Your task to perform on an android device: What is the recent news? Image 0: 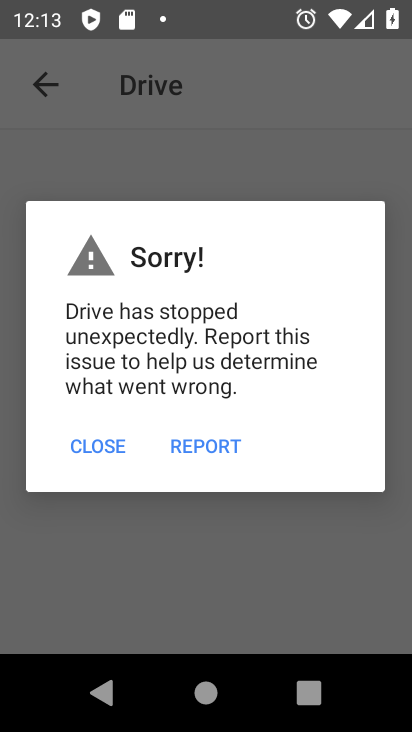
Step 0: press home button
Your task to perform on an android device: What is the recent news? Image 1: 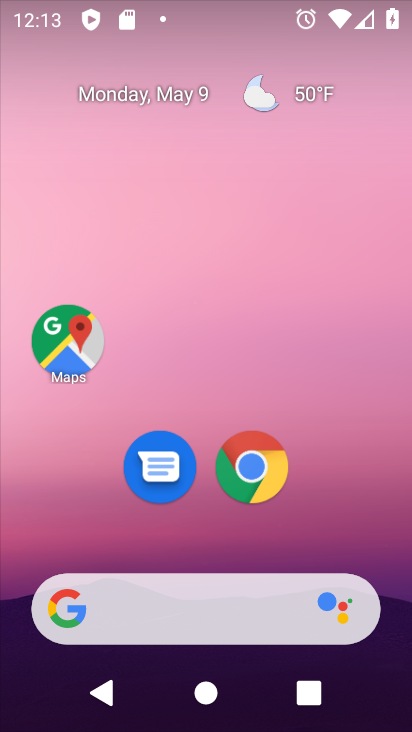
Step 1: task complete